Your task to perform on an android device: turn off wifi Image 0: 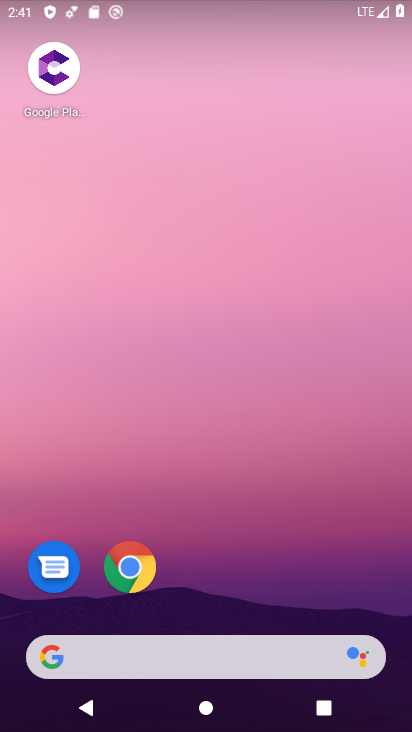
Step 0: drag from (176, 624) to (102, 30)
Your task to perform on an android device: turn off wifi Image 1: 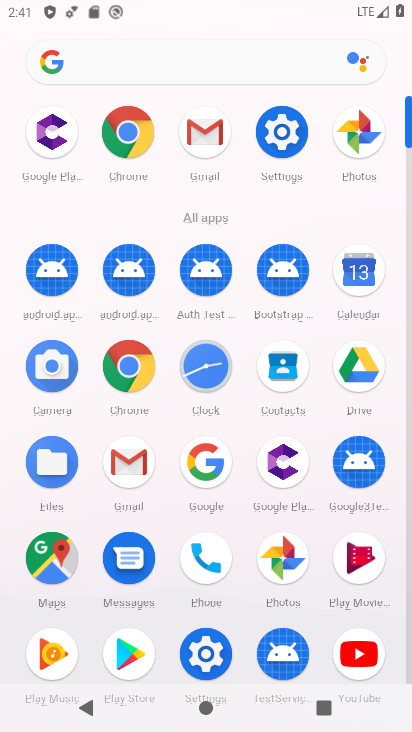
Step 1: click (273, 146)
Your task to perform on an android device: turn off wifi Image 2: 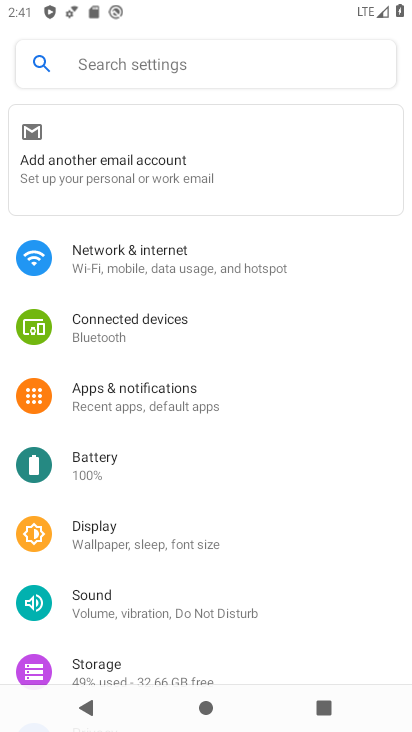
Step 2: click (140, 250)
Your task to perform on an android device: turn off wifi Image 3: 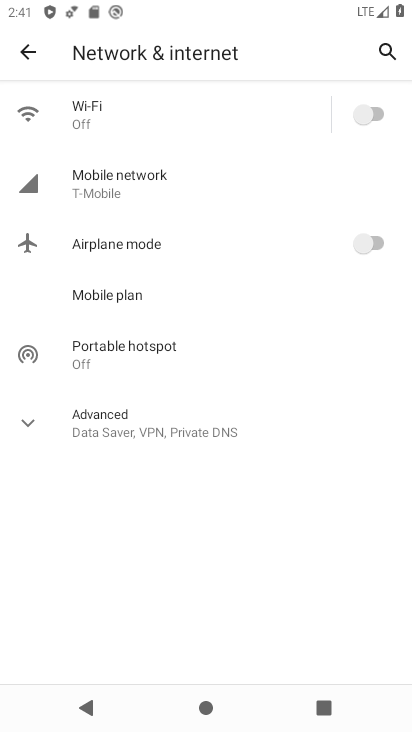
Step 3: click (182, 147)
Your task to perform on an android device: turn off wifi Image 4: 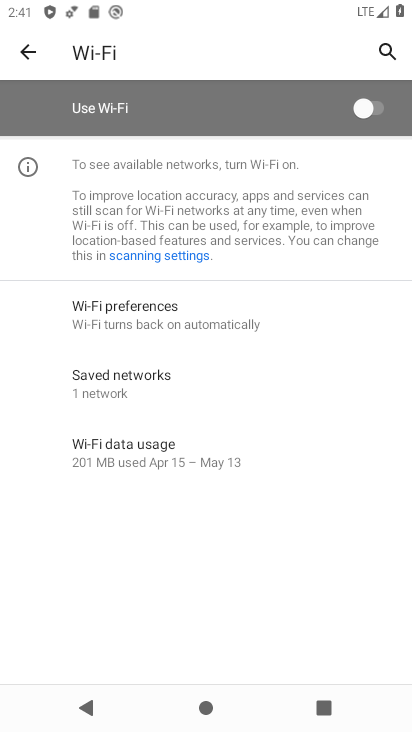
Step 4: task complete